Your task to perform on an android device: Go to Amazon Image 0: 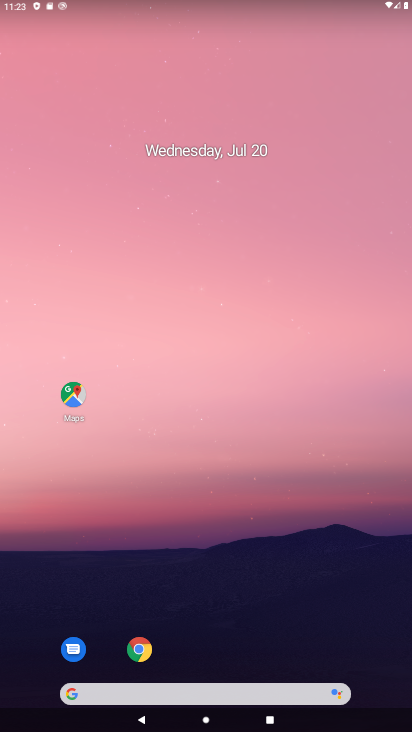
Step 0: click (138, 651)
Your task to perform on an android device: Go to Amazon Image 1: 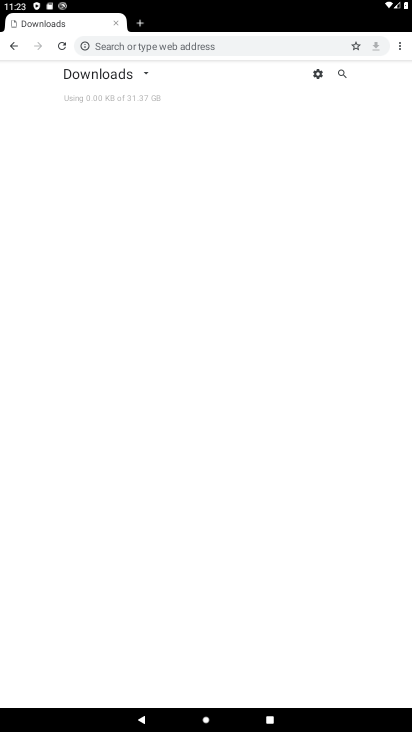
Step 1: click (138, 18)
Your task to perform on an android device: Go to Amazon Image 2: 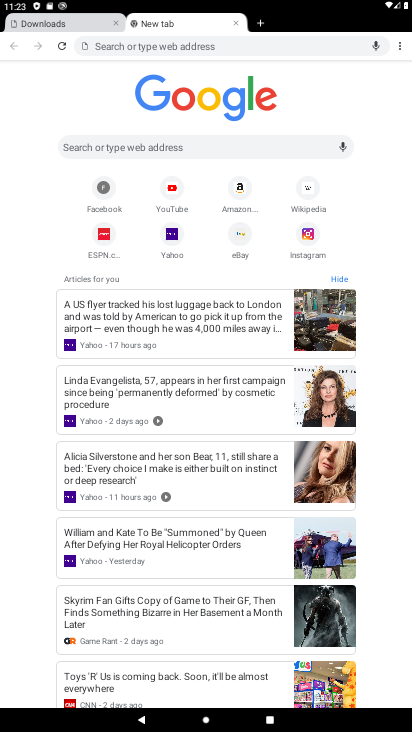
Step 2: click (235, 183)
Your task to perform on an android device: Go to Amazon Image 3: 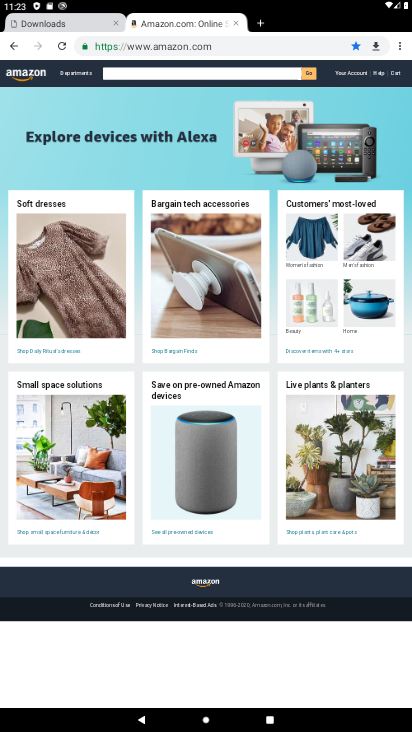
Step 3: task complete